Your task to perform on an android device: Open calendar and show me the first week of next month Image 0: 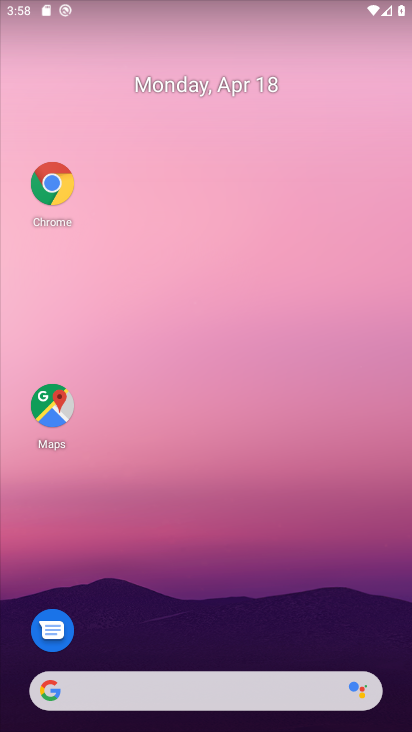
Step 0: drag from (212, 278) to (212, 106)
Your task to perform on an android device: Open calendar and show me the first week of next month Image 1: 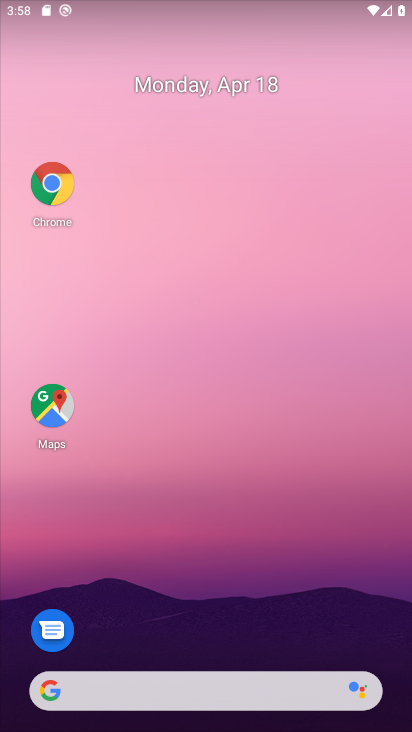
Step 1: drag from (290, 558) to (161, 118)
Your task to perform on an android device: Open calendar and show me the first week of next month Image 2: 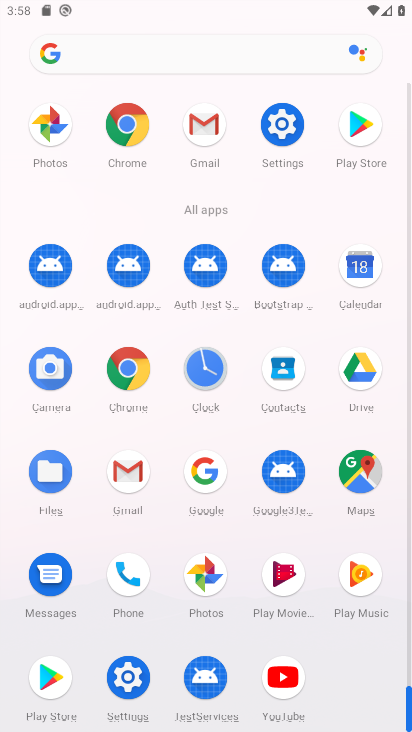
Step 2: click (280, 129)
Your task to perform on an android device: Open calendar and show me the first week of next month Image 3: 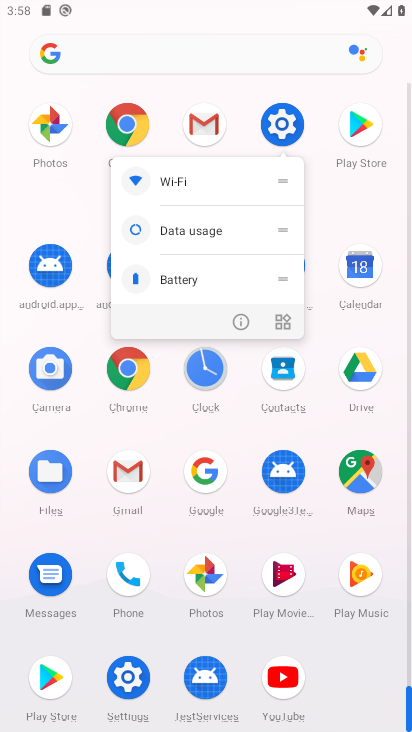
Step 3: click (280, 129)
Your task to perform on an android device: Open calendar and show me the first week of next month Image 4: 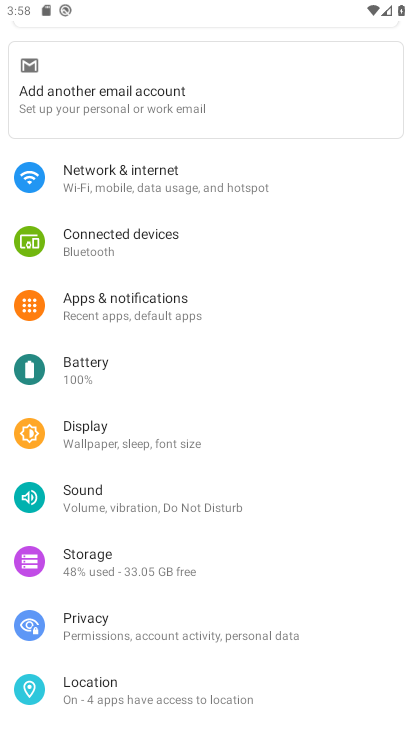
Step 4: press home button
Your task to perform on an android device: Open calendar and show me the first week of next month Image 5: 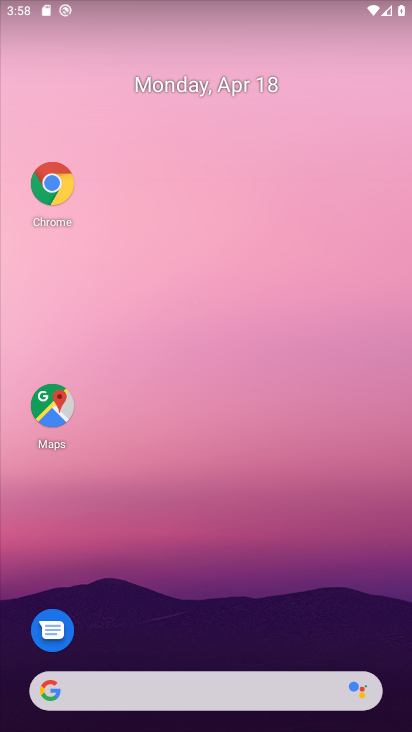
Step 5: drag from (300, 569) to (195, 84)
Your task to perform on an android device: Open calendar and show me the first week of next month Image 6: 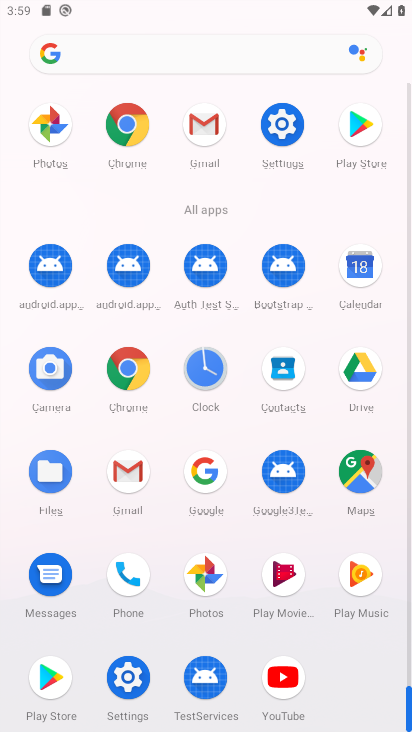
Step 6: click (357, 267)
Your task to perform on an android device: Open calendar and show me the first week of next month Image 7: 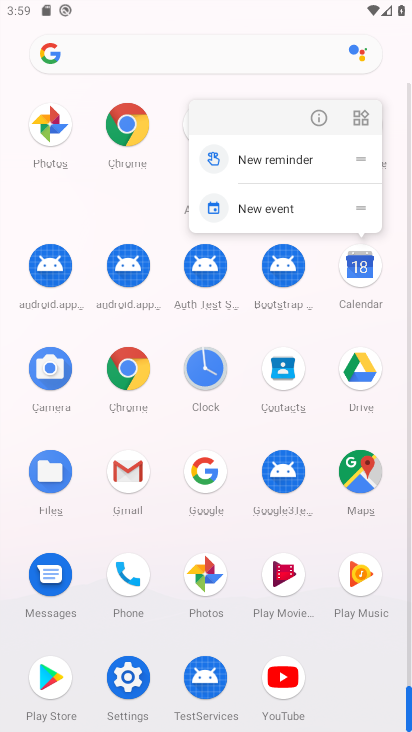
Step 7: click (358, 266)
Your task to perform on an android device: Open calendar and show me the first week of next month Image 8: 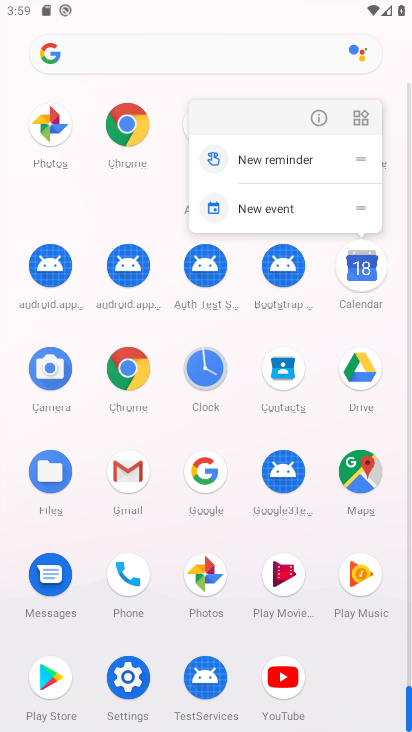
Step 8: click (358, 266)
Your task to perform on an android device: Open calendar and show me the first week of next month Image 9: 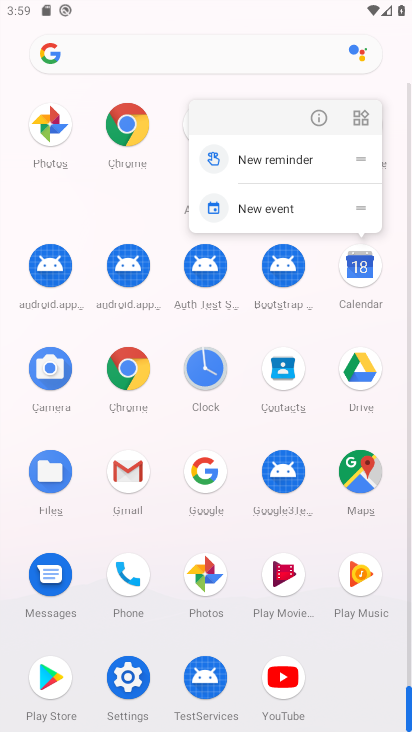
Step 9: click (359, 265)
Your task to perform on an android device: Open calendar and show me the first week of next month Image 10: 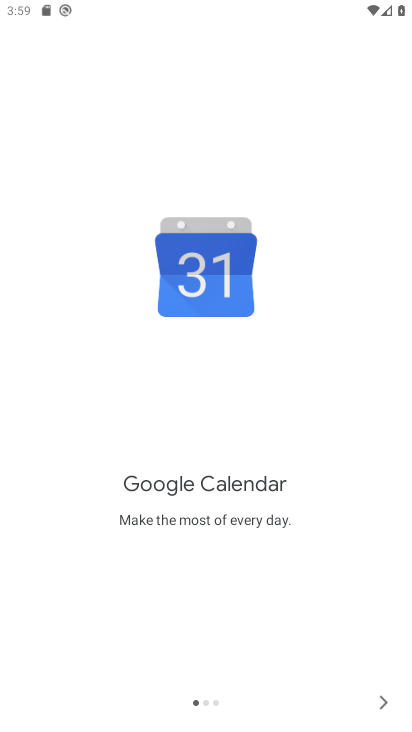
Step 10: click (386, 703)
Your task to perform on an android device: Open calendar and show me the first week of next month Image 11: 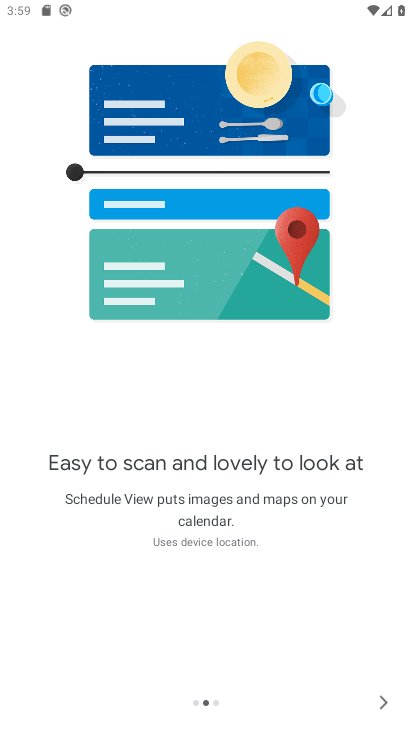
Step 11: click (376, 706)
Your task to perform on an android device: Open calendar and show me the first week of next month Image 12: 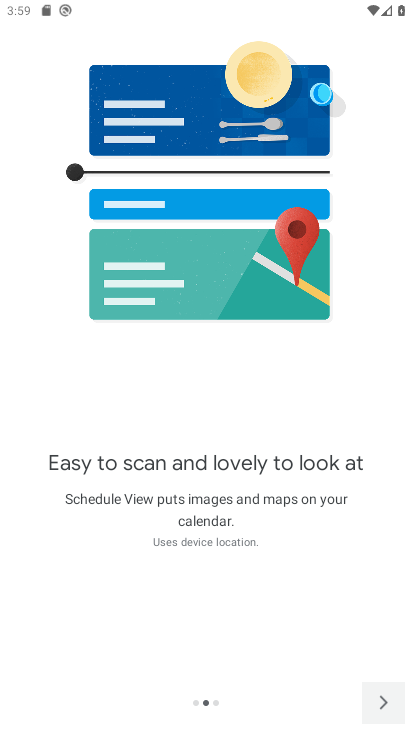
Step 12: click (376, 706)
Your task to perform on an android device: Open calendar and show me the first week of next month Image 13: 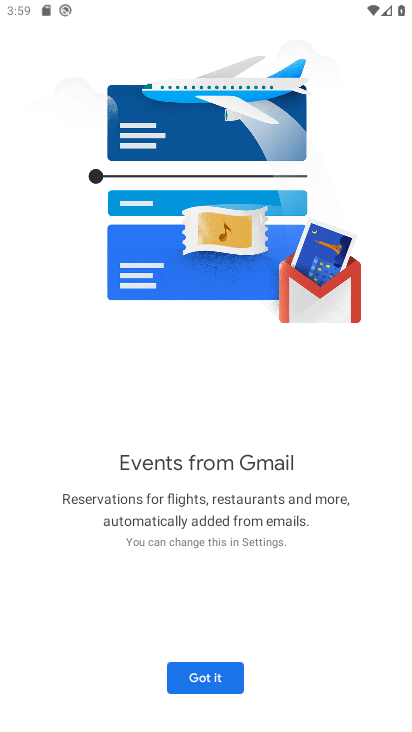
Step 13: click (376, 705)
Your task to perform on an android device: Open calendar and show me the first week of next month Image 14: 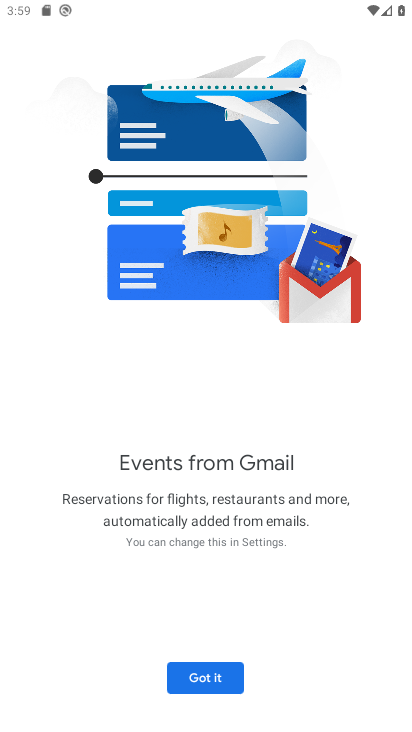
Step 14: click (204, 669)
Your task to perform on an android device: Open calendar and show me the first week of next month Image 15: 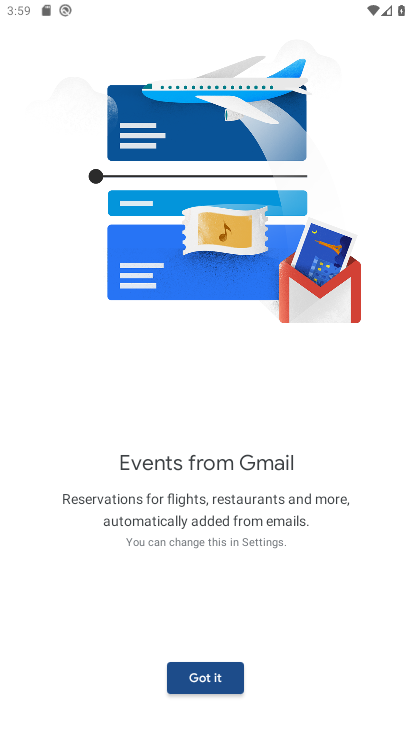
Step 15: click (221, 656)
Your task to perform on an android device: Open calendar and show me the first week of next month Image 16: 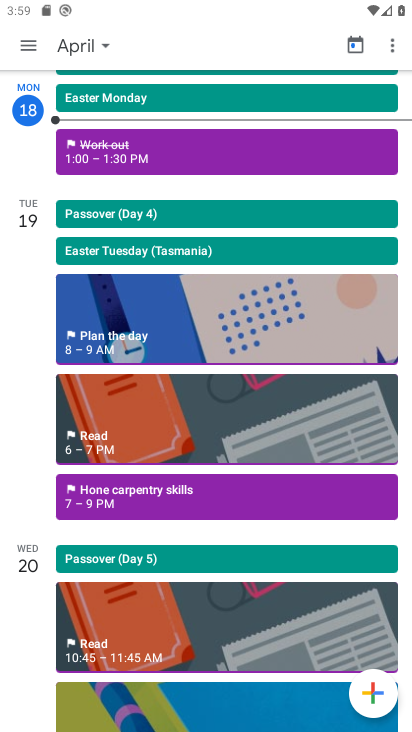
Step 16: click (101, 45)
Your task to perform on an android device: Open calendar and show me the first week of next month Image 17: 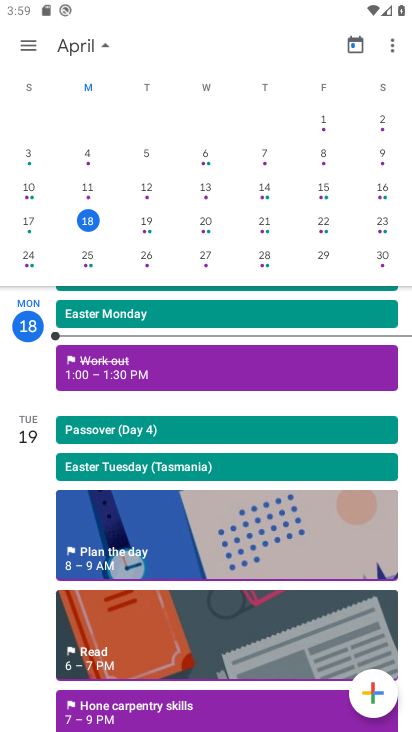
Step 17: click (103, 57)
Your task to perform on an android device: Open calendar and show me the first week of next month Image 18: 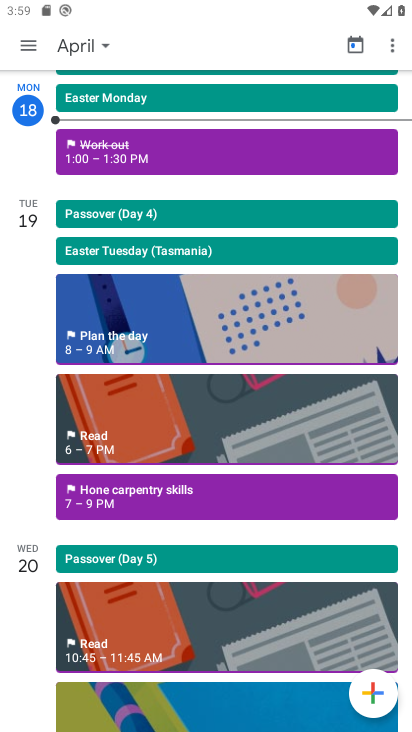
Step 18: click (104, 46)
Your task to perform on an android device: Open calendar and show me the first week of next month Image 19: 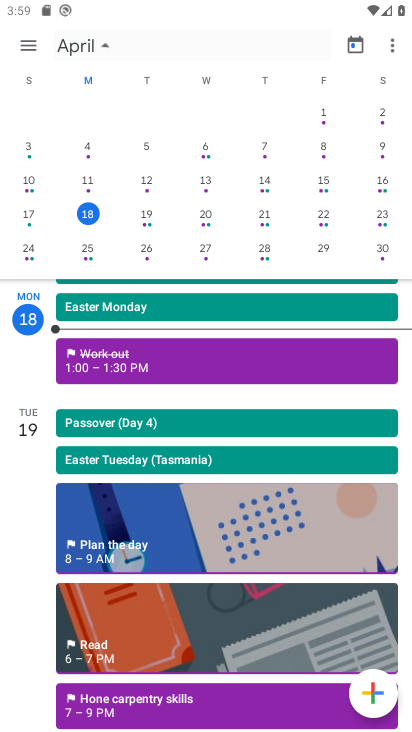
Step 19: click (126, 92)
Your task to perform on an android device: Open calendar and show me the first week of next month Image 20: 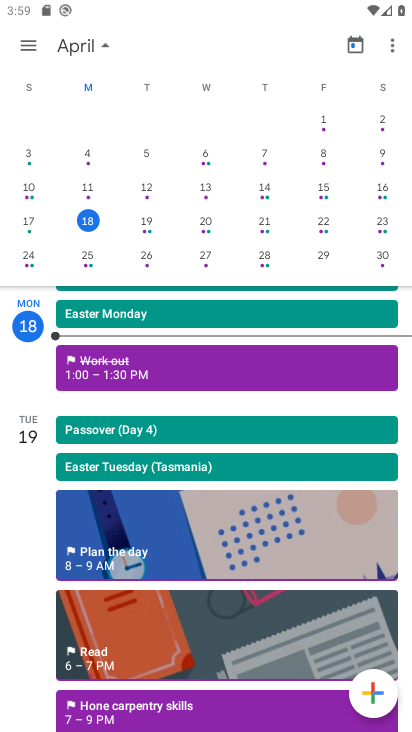
Step 20: drag from (135, 232) to (91, 56)
Your task to perform on an android device: Open calendar and show me the first week of next month Image 21: 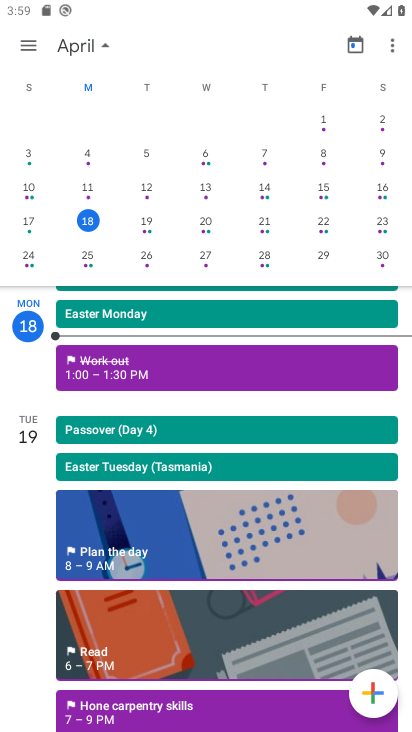
Step 21: click (82, 24)
Your task to perform on an android device: Open calendar and show me the first week of next month Image 22: 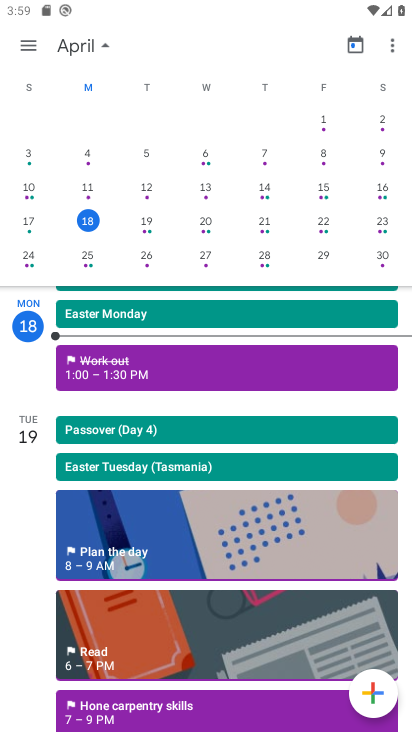
Step 22: click (118, 28)
Your task to perform on an android device: Open calendar and show me the first week of next month Image 23: 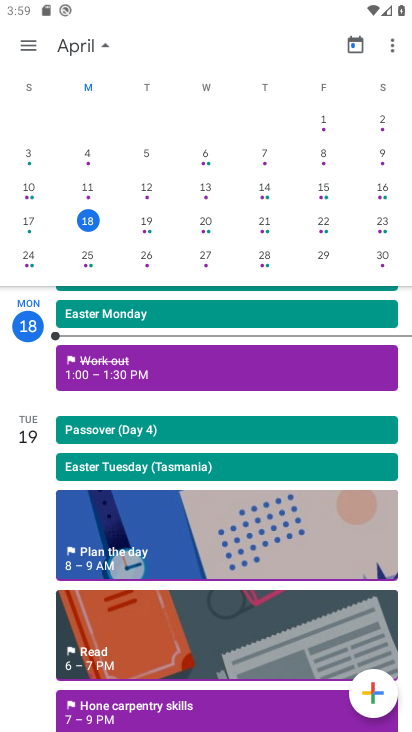
Step 23: drag from (143, 138) to (89, 47)
Your task to perform on an android device: Open calendar and show me the first week of next month Image 24: 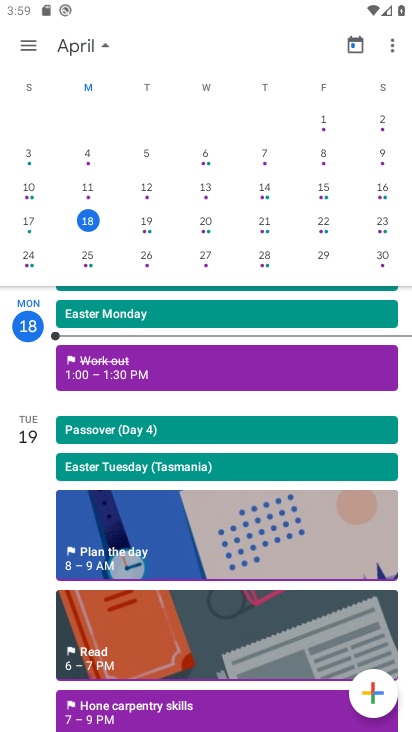
Step 24: click (96, 56)
Your task to perform on an android device: Open calendar and show me the first week of next month Image 25: 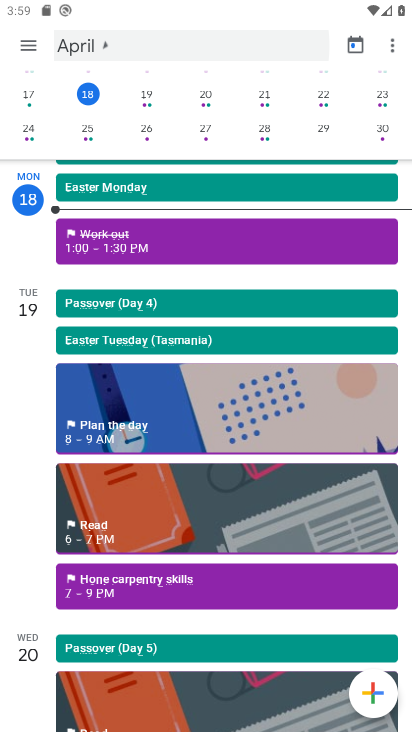
Step 25: click (96, 56)
Your task to perform on an android device: Open calendar and show me the first week of next month Image 26: 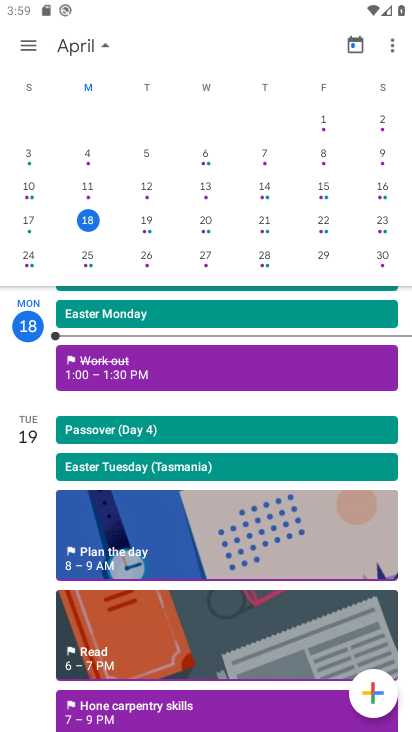
Step 26: drag from (83, 290) to (112, 44)
Your task to perform on an android device: Open calendar and show me the first week of next month Image 27: 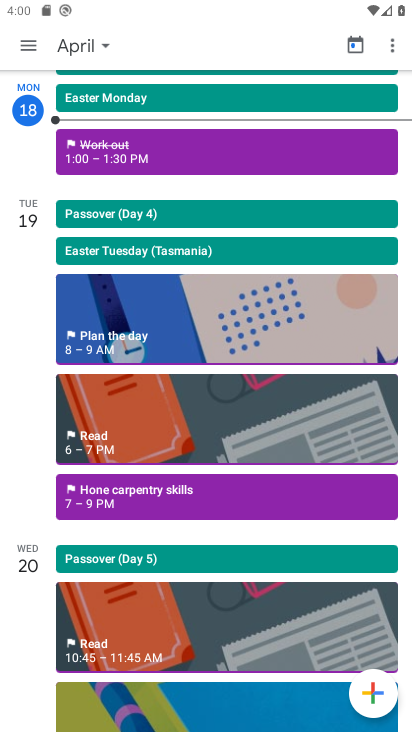
Step 27: click (122, 178)
Your task to perform on an android device: Open calendar and show me the first week of next month Image 28: 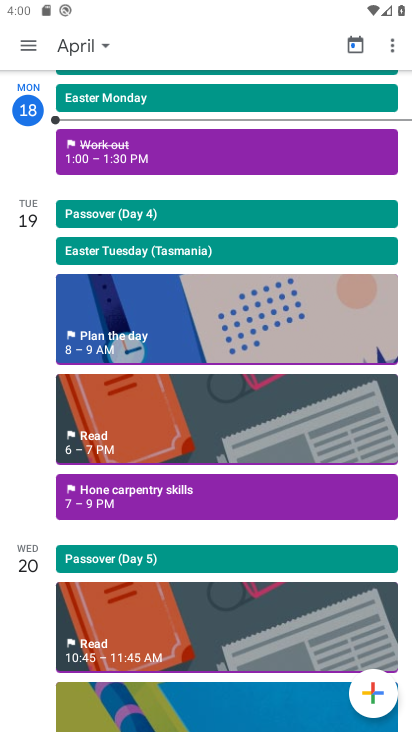
Step 28: drag from (112, 53) to (87, 30)
Your task to perform on an android device: Open calendar and show me the first week of next month Image 29: 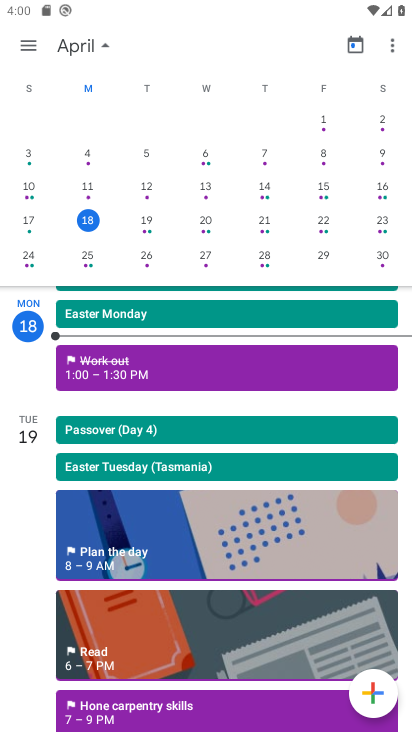
Step 29: drag from (165, 175) to (82, 37)
Your task to perform on an android device: Open calendar and show me the first week of next month Image 30: 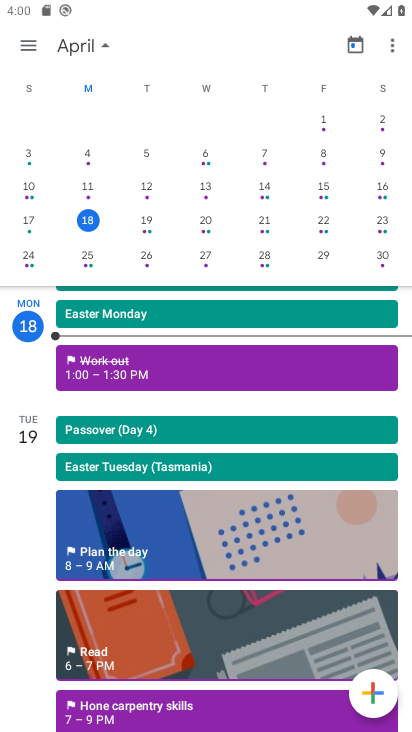
Step 30: click (94, 25)
Your task to perform on an android device: Open calendar and show me the first week of next month Image 31: 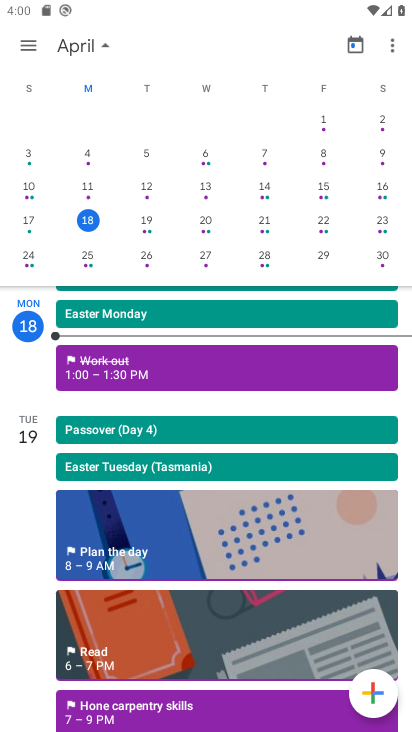
Step 31: click (96, 25)
Your task to perform on an android device: Open calendar and show me the first week of next month Image 32: 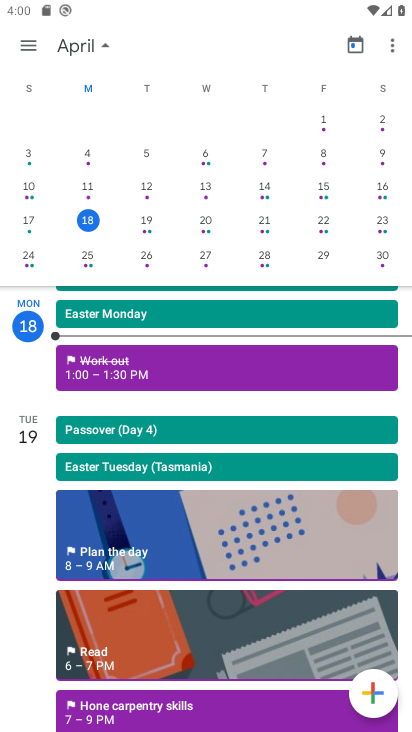
Step 32: click (96, 25)
Your task to perform on an android device: Open calendar and show me the first week of next month Image 33: 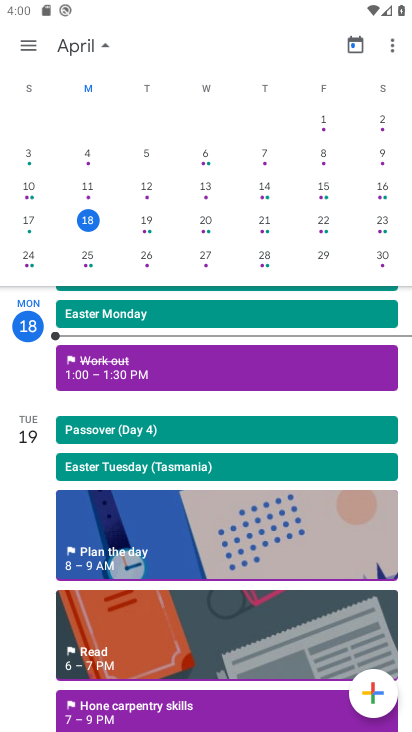
Step 33: click (96, 25)
Your task to perform on an android device: Open calendar and show me the first week of next month Image 34: 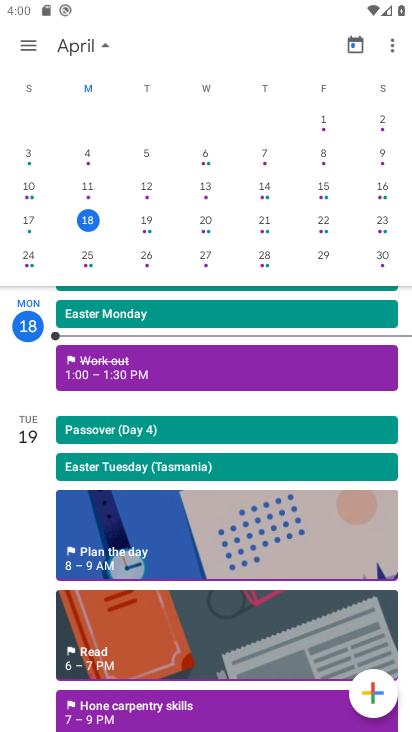
Step 34: click (82, 46)
Your task to perform on an android device: Open calendar and show me the first week of next month Image 35: 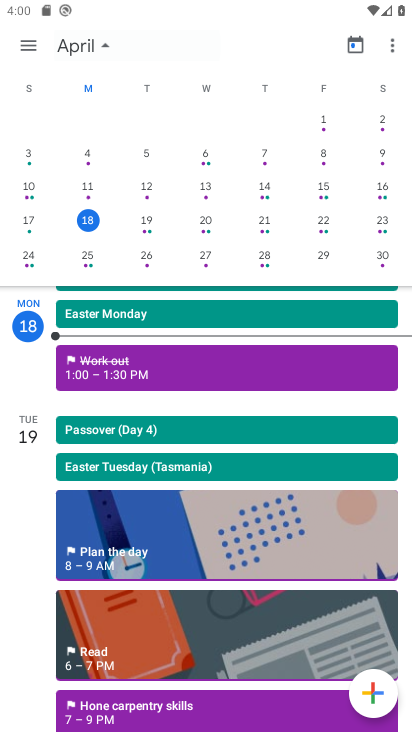
Step 35: click (82, 57)
Your task to perform on an android device: Open calendar and show me the first week of next month Image 36: 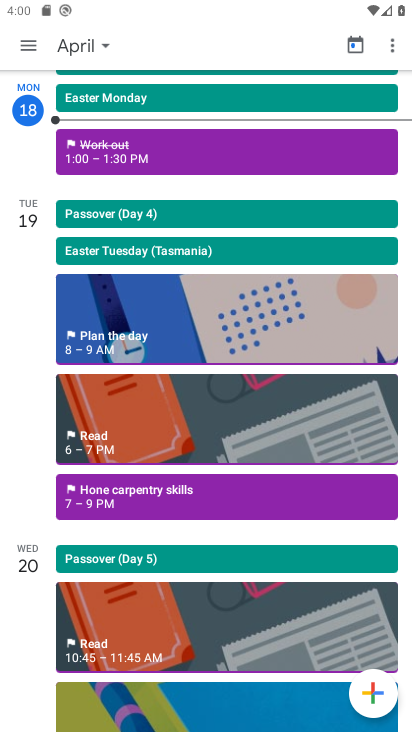
Step 36: click (70, 41)
Your task to perform on an android device: Open calendar and show me the first week of next month Image 37: 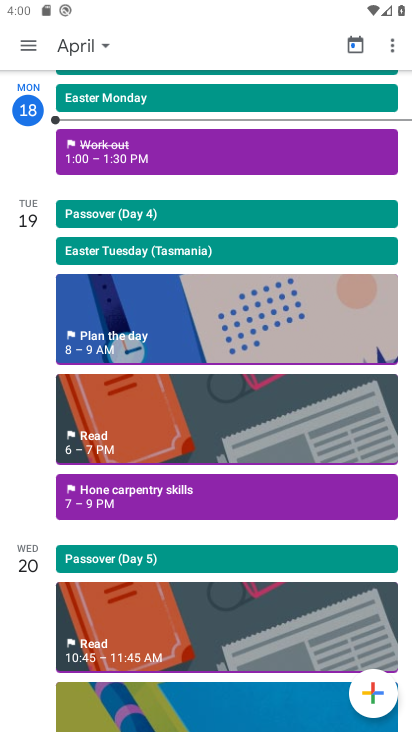
Step 37: drag from (102, 132) to (141, 138)
Your task to perform on an android device: Open calendar and show me the first week of next month Image 38: 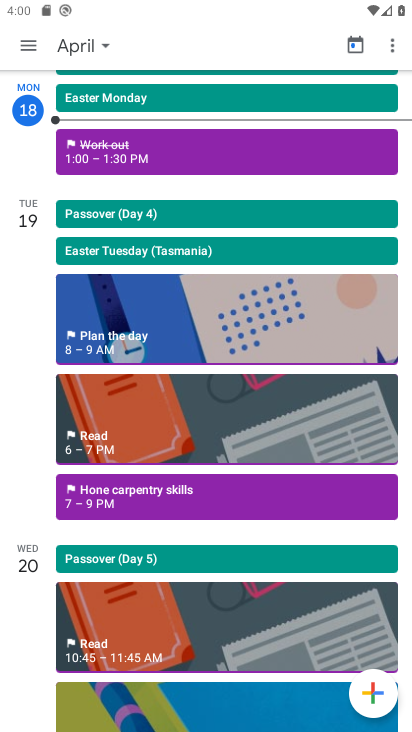
Step 38: click (102, 46)
Your task to perform on an android device: Open calendar and show me the first week of next month Image 39: 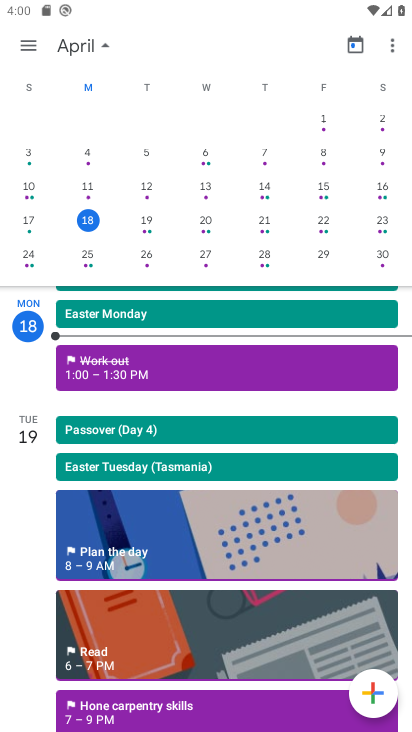
Step 39: drag from (235, 225) to (95, 165)
Your task to perform on an android device: Open calendar and show me the first week of next month Image 40: 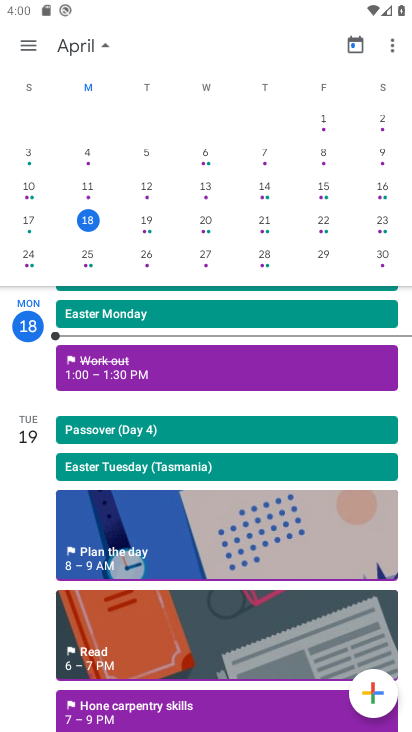
Step 40: drag from (269, 188) to (25, 164)
Your task to perform on an android device: Open calendar and show me the first week of next month Image 41: 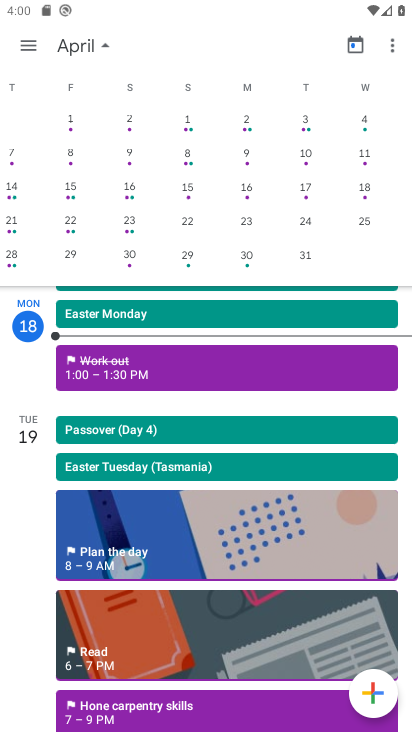
Step 41: drag from (242, 164) to (53, 172)
Your task to perform on an android device: Open calendar and show me the first week of next month Image 42: 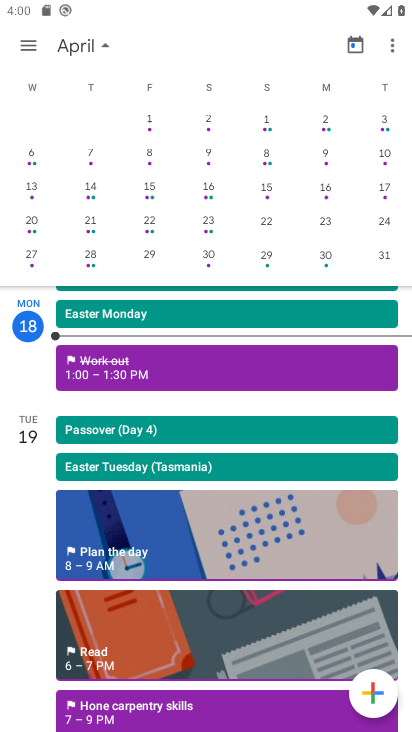
Step 42: drag from (267, 177) to (2, 172)
Your task to perform on an android device: Open calendar and show me the first week of next month Image 43: 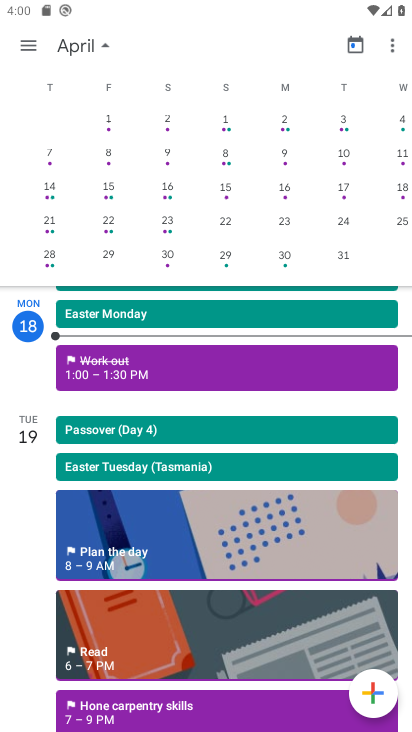
Step 43: drag from (266, 214) to (27, 229)
Your task to perform on an android device: Open calendar and show me the first week of next month Image 44: 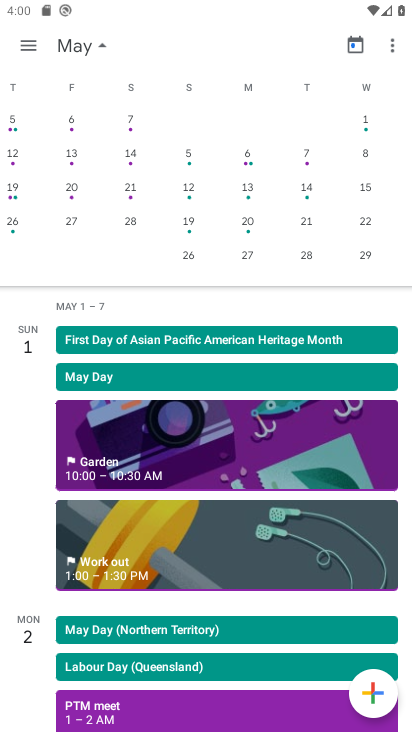
Step 44: drag from (241, 211) to (0, 205)
Your task to perform on an android device: Open calendar and show me the first week of next month Image 45: 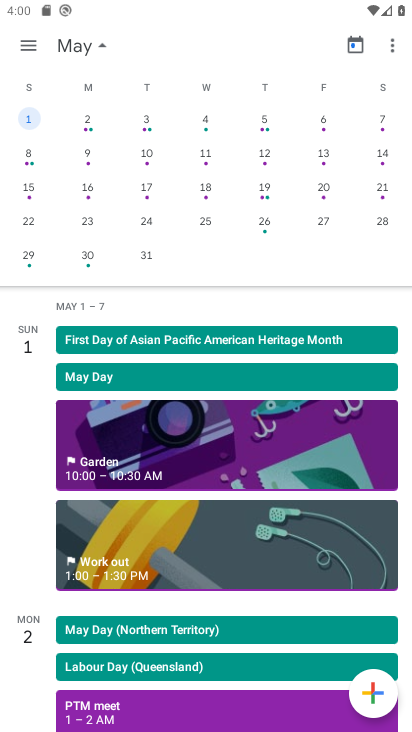
Step 45: click (90, 119)
Your task to perform on an android device: Open calendar and show me the first week of next month Image 46: 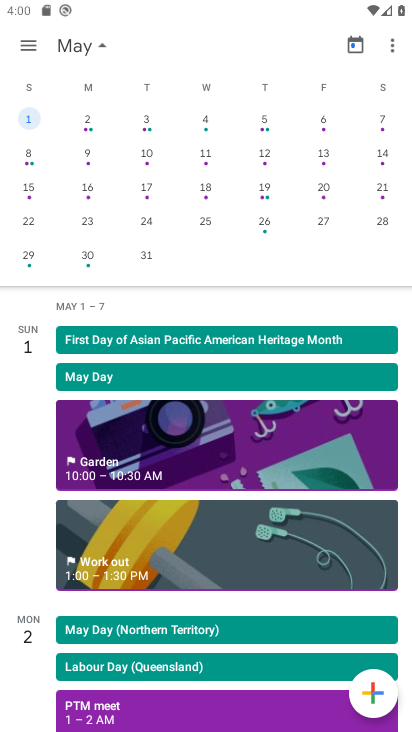
Step 46: click (90, 119)
Your task to perform on an android device: Open calendar and show me the first week of next month Image 47: 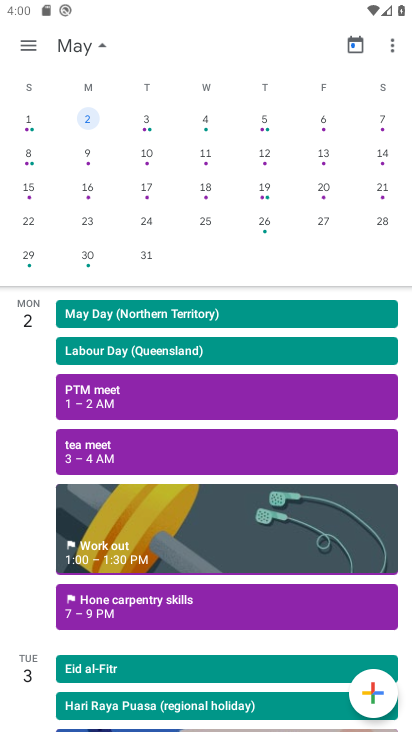
Step 47: task complete